Your task to perform on an android device: turn on translation in the chrome app Image 0: 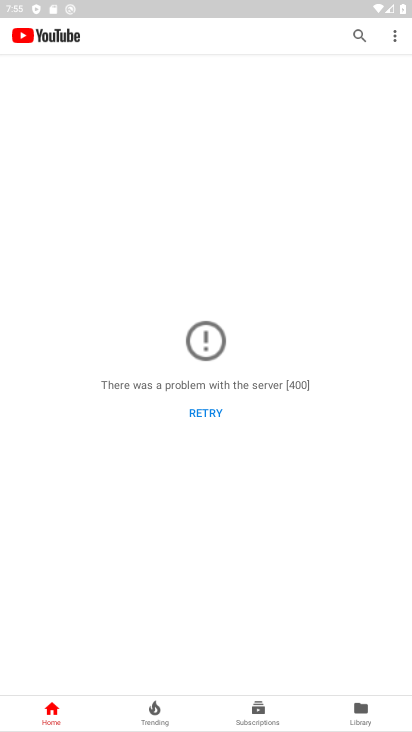
Step 0: press home button
Your task to perform on an android device: turn on translation in the chrome app Image 1: 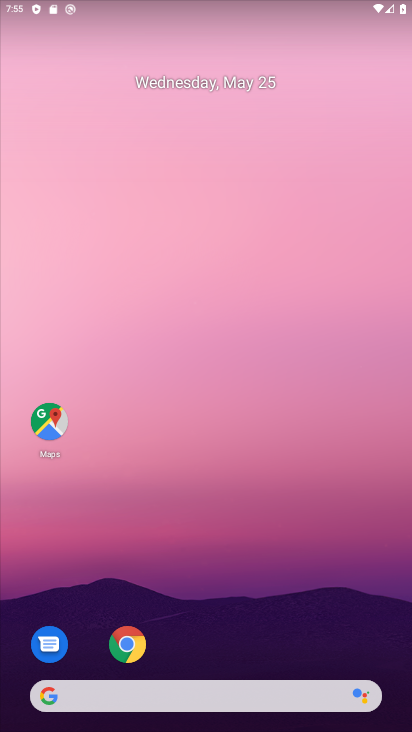
Step 1: click (175, 636)
Your task to perform on an android device: turn on translation in the chrome app Image 2: 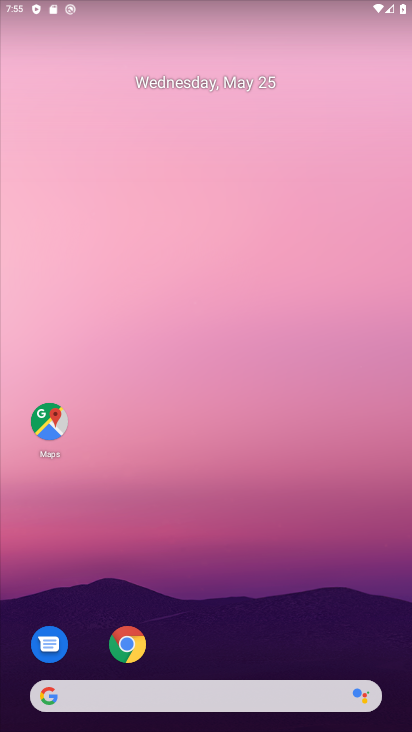
Step 2: click (132, 640)
Your task to perform on an android device: turn on translation in the chrome app Image 3: 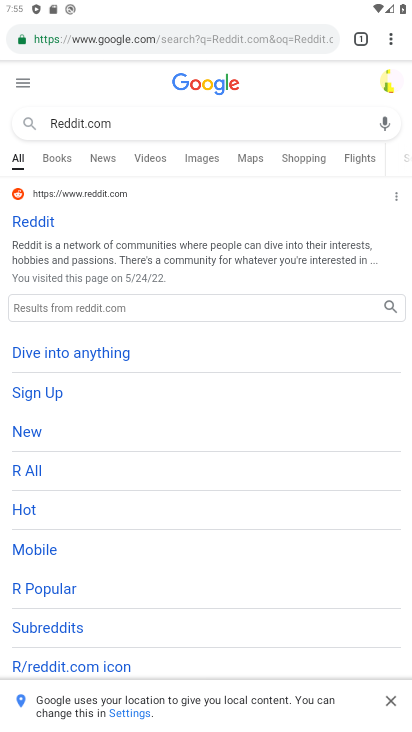
Step 3: click (391, 41)
Your task to perform on an android device: turn on translation in the chrome app Image 4: 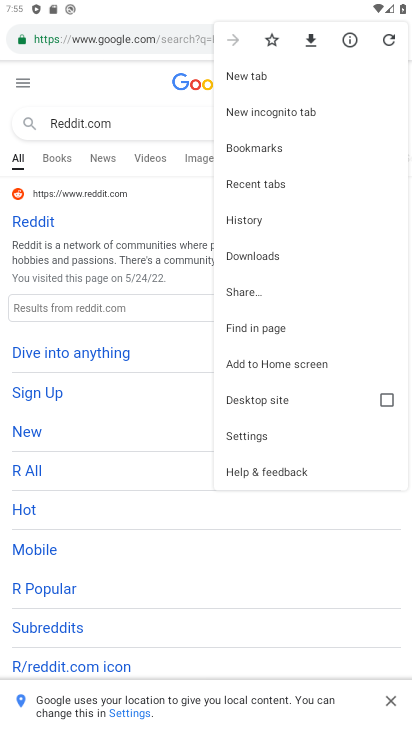
Step 4: click (256, 438)
Your task to perform on an android device: turn on translation in the chrome app Image 5: 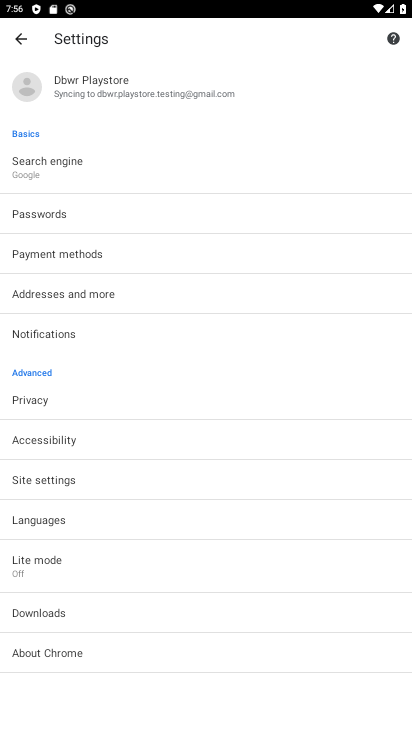
Step 5: click (57, 520)
Your task to perform on an android device: turn on translation in the chrome app Image 6: 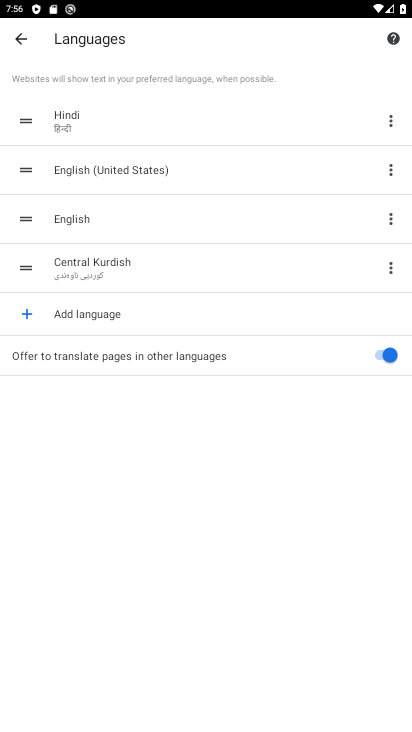
Step 6: task complete